Your task to perform on an android device: make emails show in primary in the gmail app Image 0: 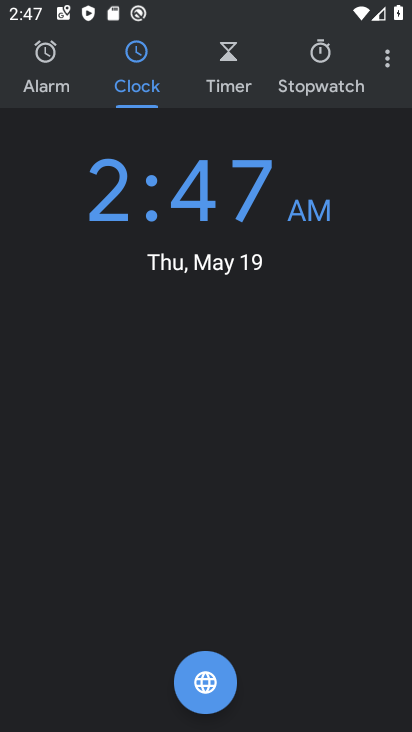
Step 0: press home button
Your task to perform on an android device: make emails show in primary in the gmail app Image 1: 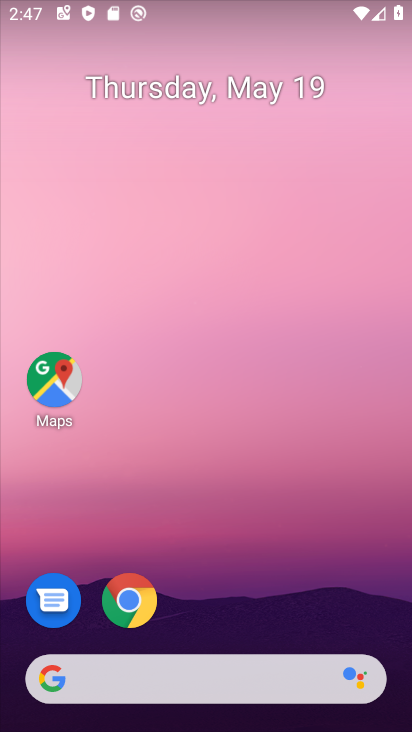
Step 1: drag from (345, 476) to (332, 408)
Your task to perform on an android device: make emails show in primary in the gmail app Image 2: 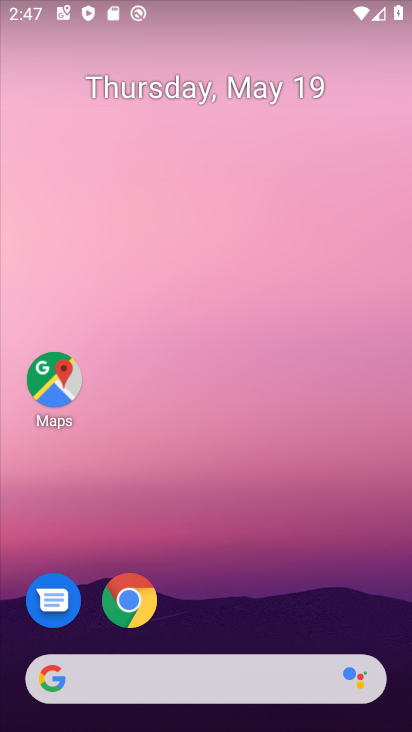
Step 2: drag from (403, 699) to (362, 493)
Your task to perform on an android device: make emails show in primary in the gmail app Image 3: 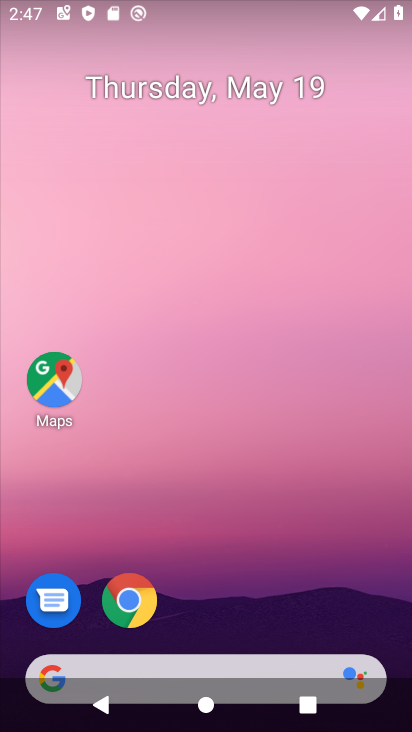
Step 3: drag from (400, 702) to (339, 285)
Your task to perform on an android device: make emails show in primary in the gmail app Image 4: 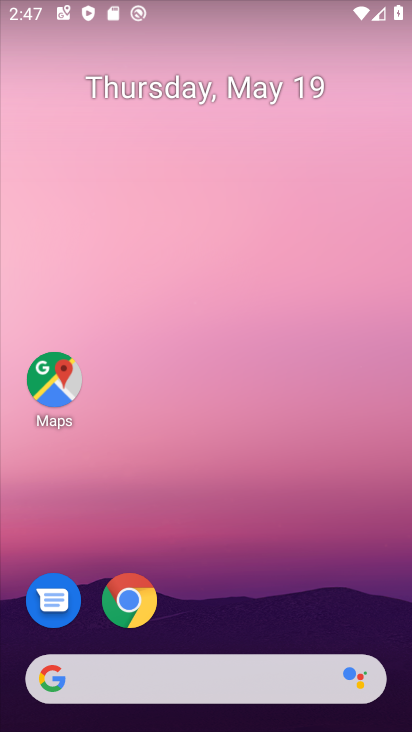
Step 4: drag from (386, 721) to (300, 40)
Your task to perform on an android device: make emails show in primary in the gmail app Image 5: 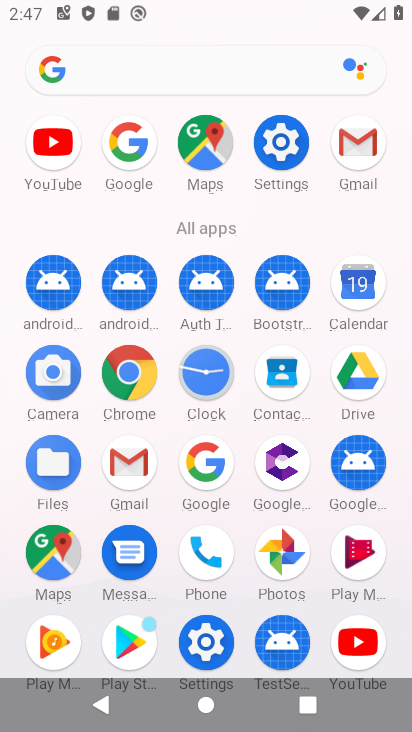
Step 5: click (356, 147)
Your task to perform on an android device: make emails show in primary in the gmail app Image 6: 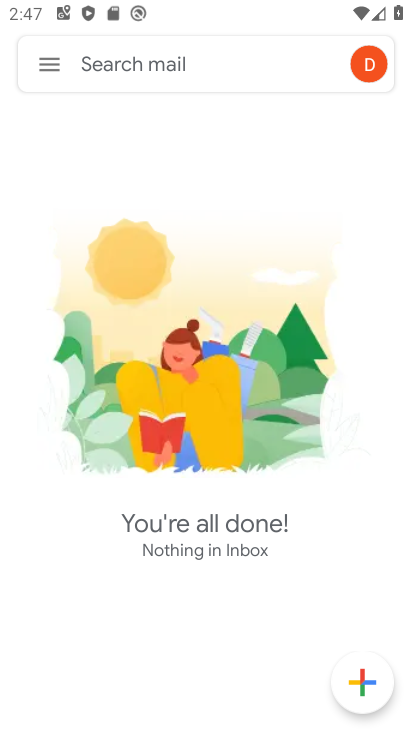
Step 6: click (40, 57)
Your task to perform on an android device: make emails show in primary in the gmail app Image 7: 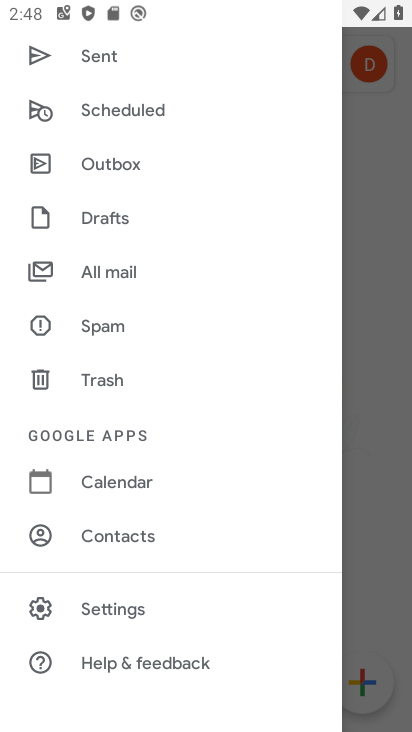
Step 7: click (108, 607)
Your task to perform on an android device: make emails show in primary in the gmail app Image 8: 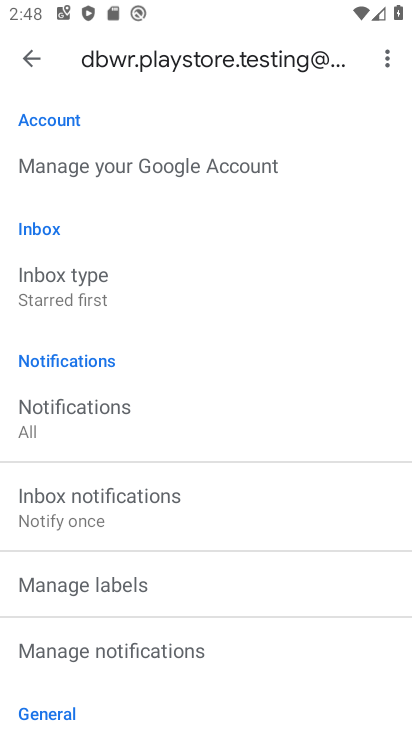
Step 8: click (32, 291)
Your task to perform on an android device: make emails show in primary in the gmail app Image 9: 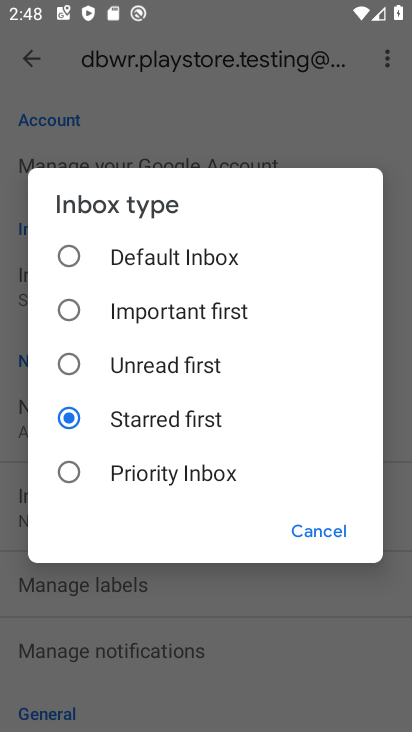
Step 9: click (80, 253)
Your task to perform on an android device: make emails show in primary in the gmail app Image 10: 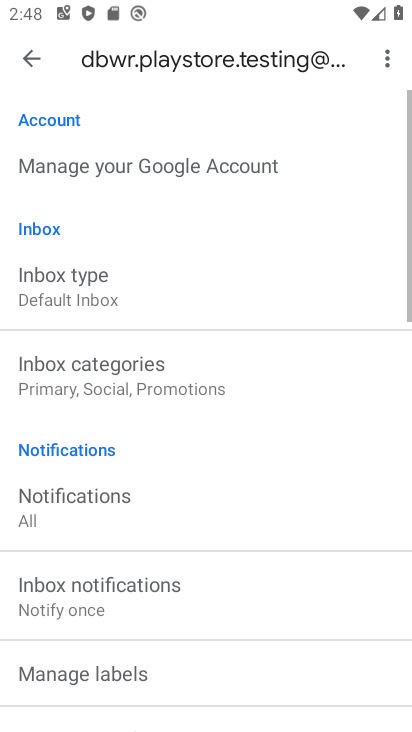
Step 10: click (88, 376)
Your task to perform on an android device: make emails show in primary in the gmail app Image 11: 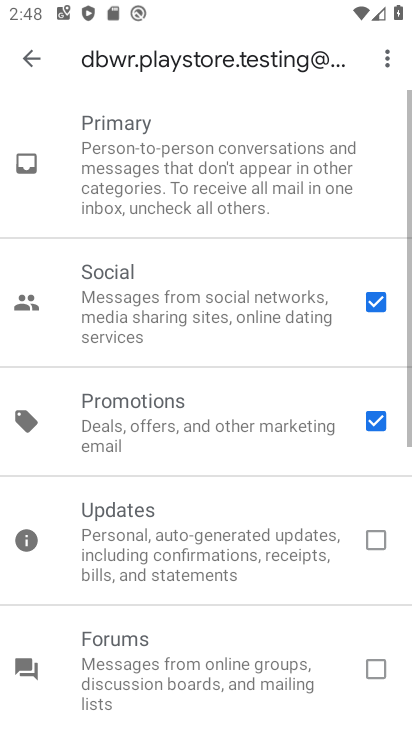
Step 11: click (367, 420)
Your task to perform on an android device: make emails show in primary in the gmail app Image 12: 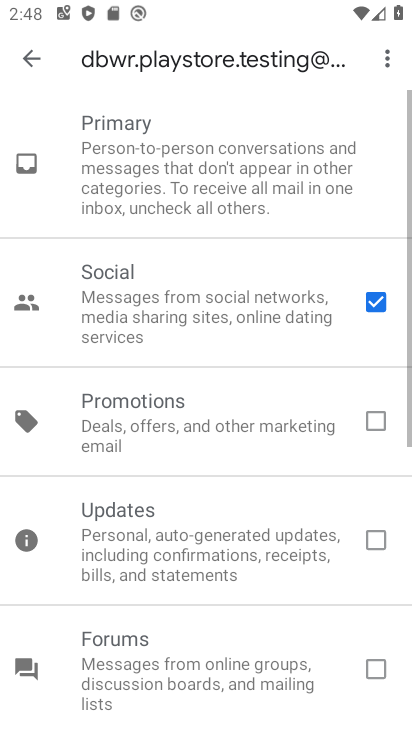
Step 12: click (376, 287)
Your task to perform on an android device: make emails show in primary in the gmail app Image 13: 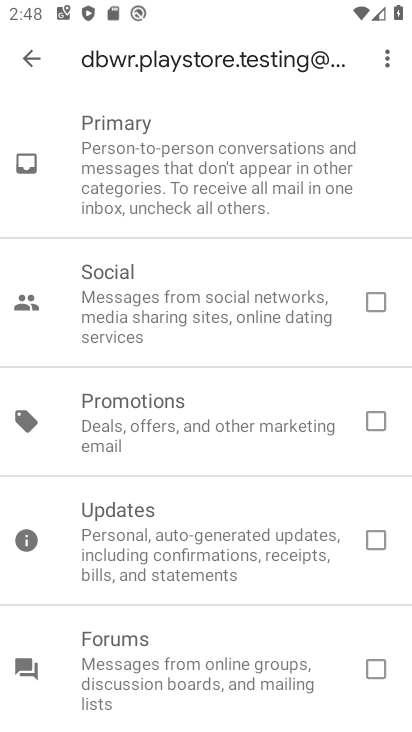
Step 13: click (29, 57)
Your task to perform on an android device: make emails show in primary in the gmail app Image 14: 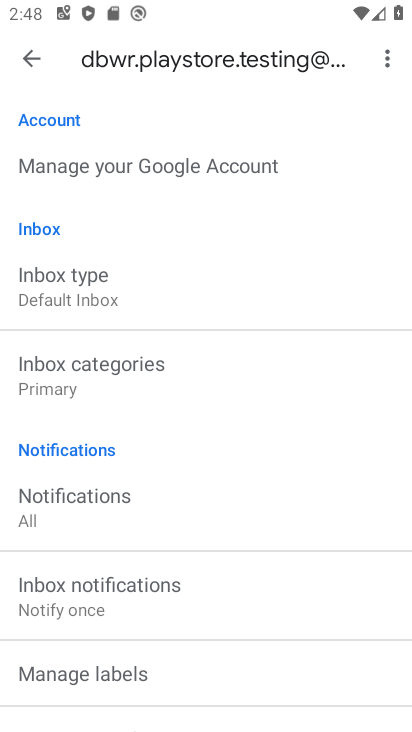
Step 14: task complete